Your task to perform on an android device: View the shopping cart on newegg.com. Add amazon basics triple a to the cart on newegg.com Image 0: 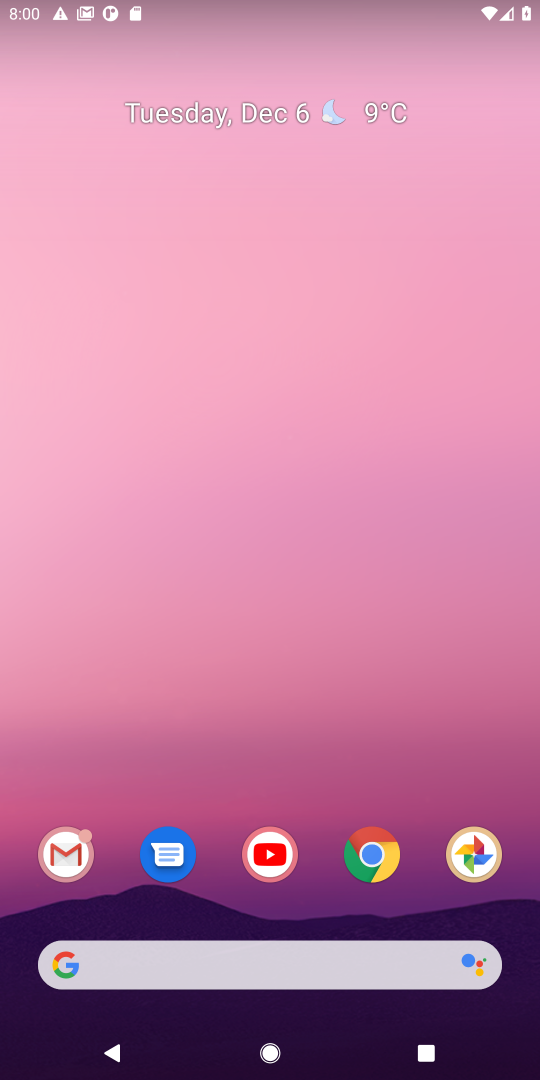
Step 0: click (366, 860)
Your task to perform on an android device: View the shopping cart on newegg.com. Add amazon basics triple a to the cart on newegg.com Image 1: 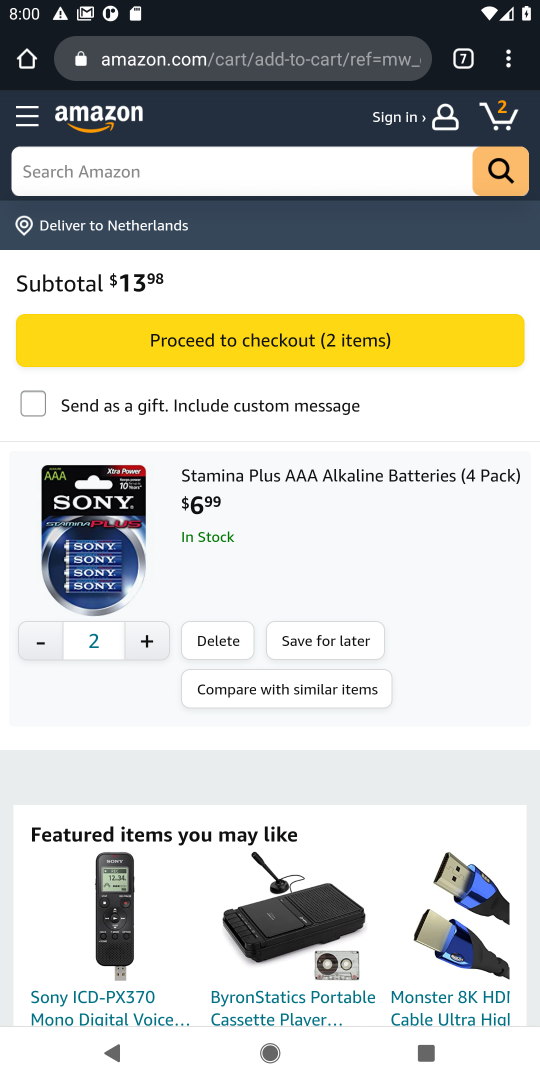
Step 1: click (469, 62)
Your task to perform on an android device: View the shopping cart on newegg.com. Add amazon basics triple a to the cart on newegg.com Image 2: 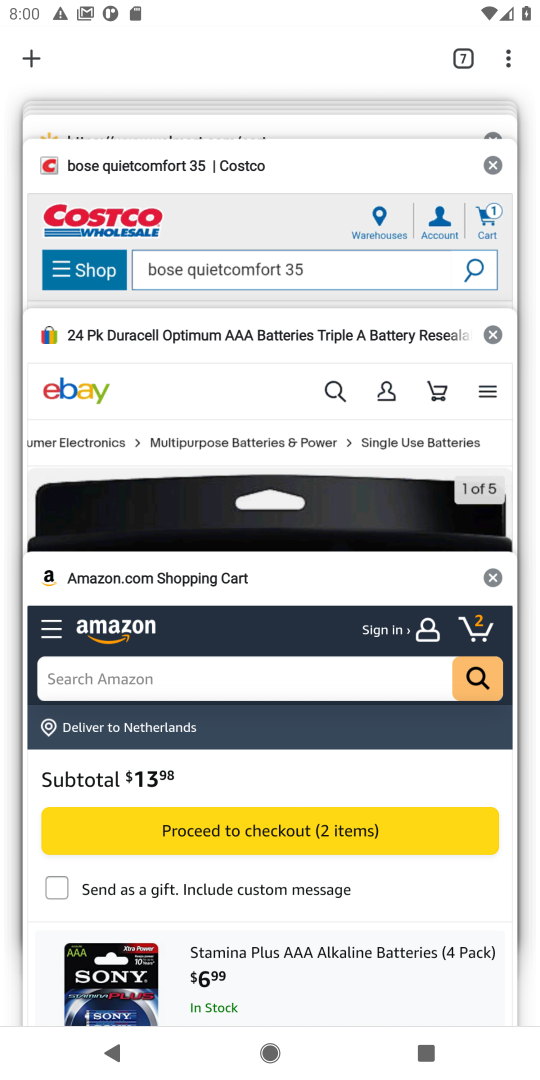
Step 2: drag from (393, 106) to (340, 483)
Your task to perform on an android device: View the shopping cart on newegg.com. Add amazon basics triple a to the cart on newegg.com Image 3: 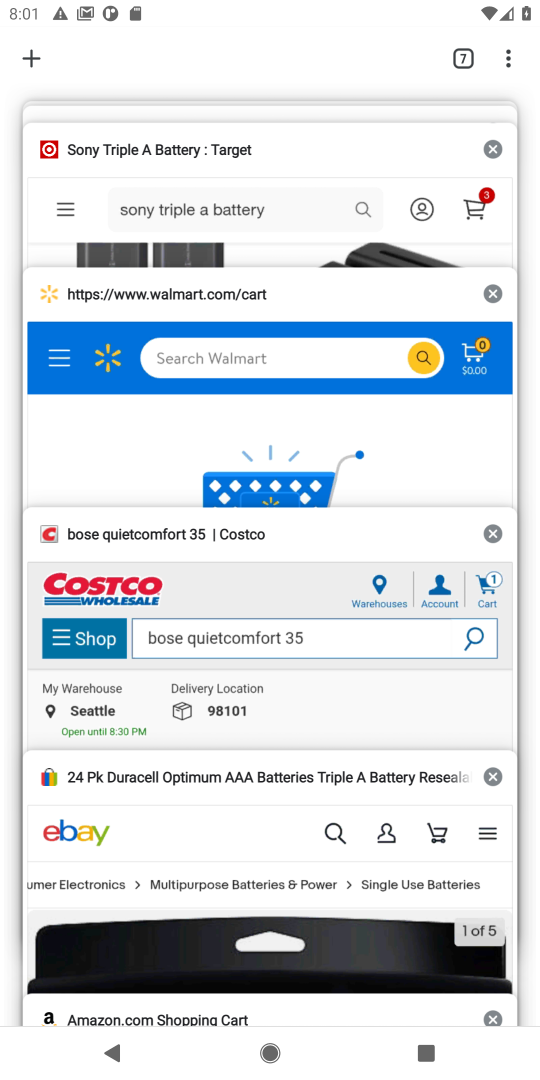
Step 3: drag from (322, 318) to (207, 750)
Your task to perform on an android device: View the shopping cart on newegg.com. Add amazon basics triple a to the cart on newegg.com Image 4: 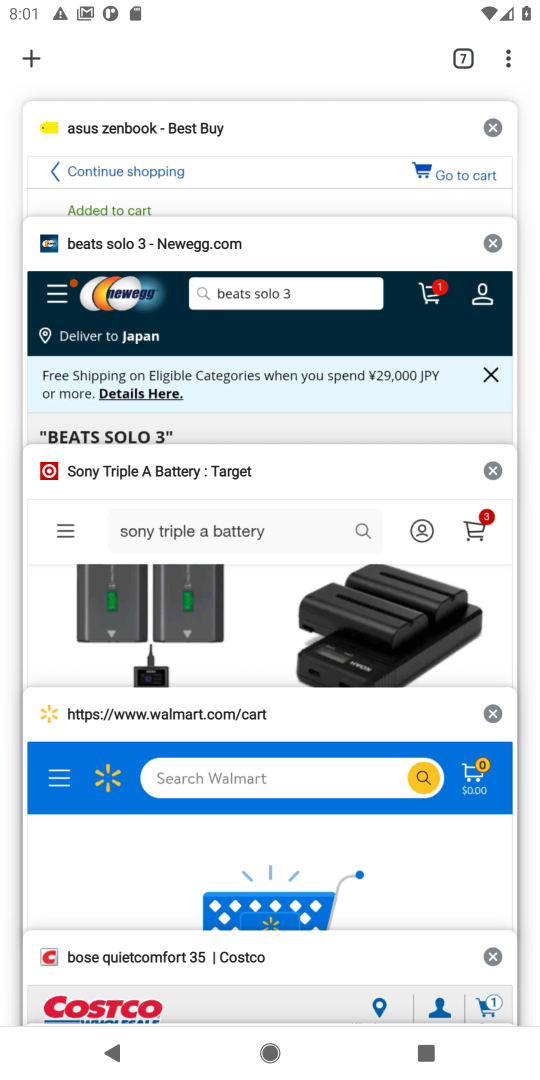
Step 4: click (257, 297)
Your task to perform on an android device: View the shopping cart on newegg.com. Add amazon basics triple a to the cart on newegg.com Image 5: 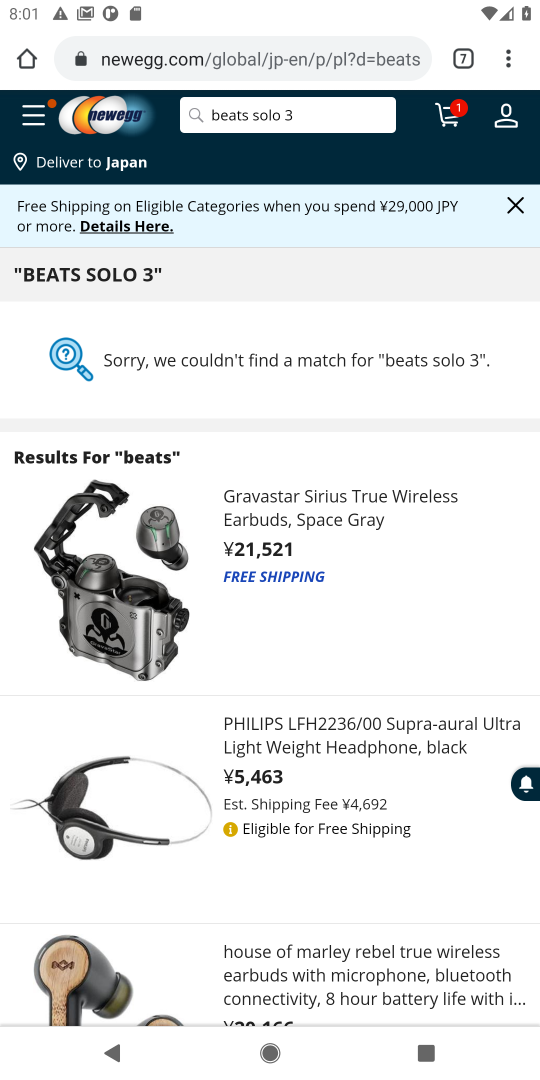
Step 5: click (457, 116)
Your task to perform on an android device: View the shopping cart on newegg.com. Add amazon basics triple a to the cart on newegg.com Image 6: 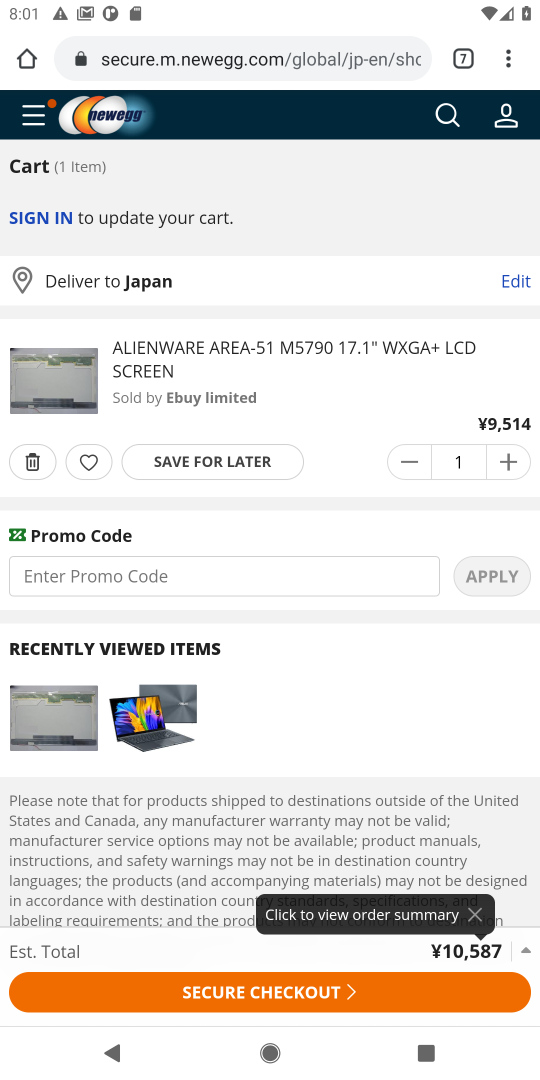
Step 6: click (445, 121)
Your task to perform on an android device: View the shopping cart on newegg.com. Add amazon basics triple a to the cart on newegg.com Image 7: 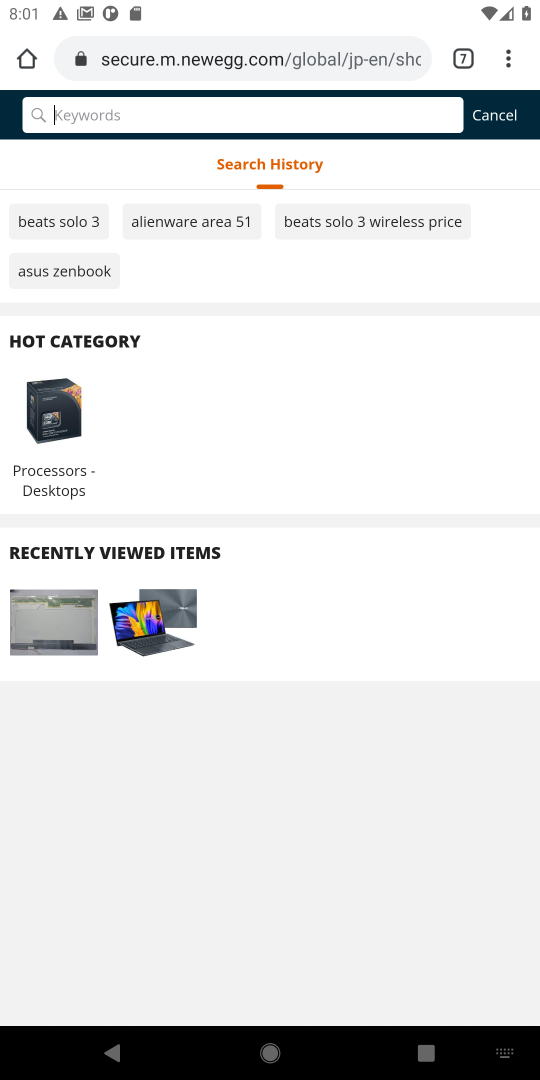
Step 7: type "amazon basics triple a batteries"
Your task to perform on an android device: View the shopping cart on newegg.com. Add amazon basics triple a to the cart on newegg.com Image 8: 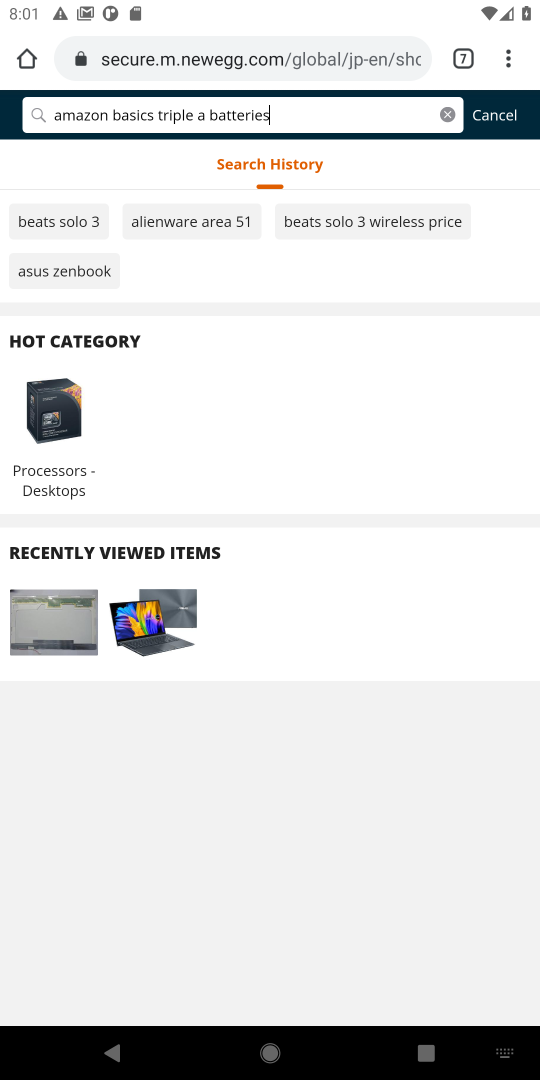
Step 8: click (36, 113)
Your task to perform on an android device: View the shopping cart on newegg.com. Add amazon basics triple a to the cart on newegg.com Image 9: 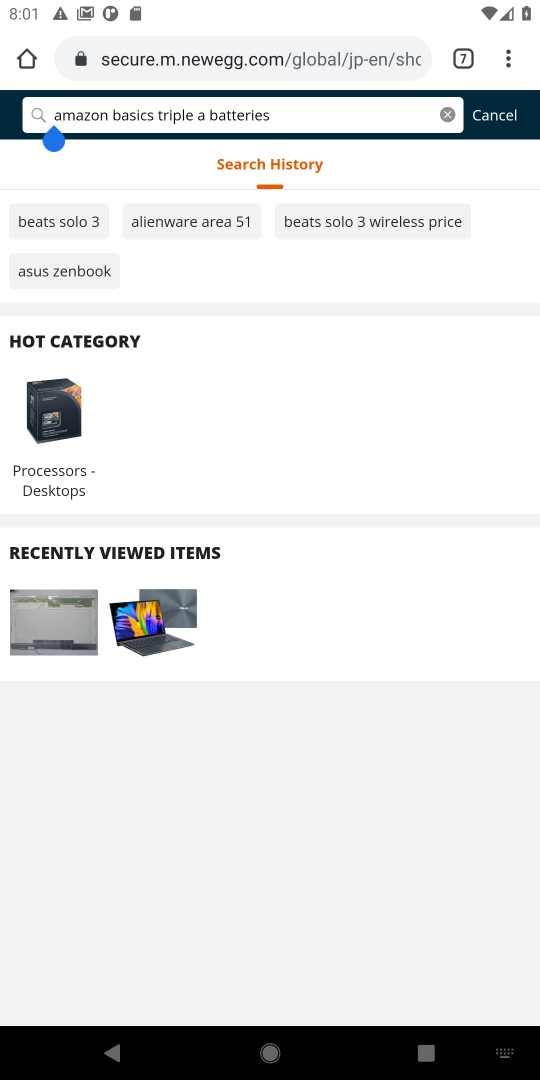
Step 9: click (303, 111)
Your task to perform on an android device: View the shopping cart on newegg.com. Add amazon basics triple a to the cart on newegg.com Image 10: 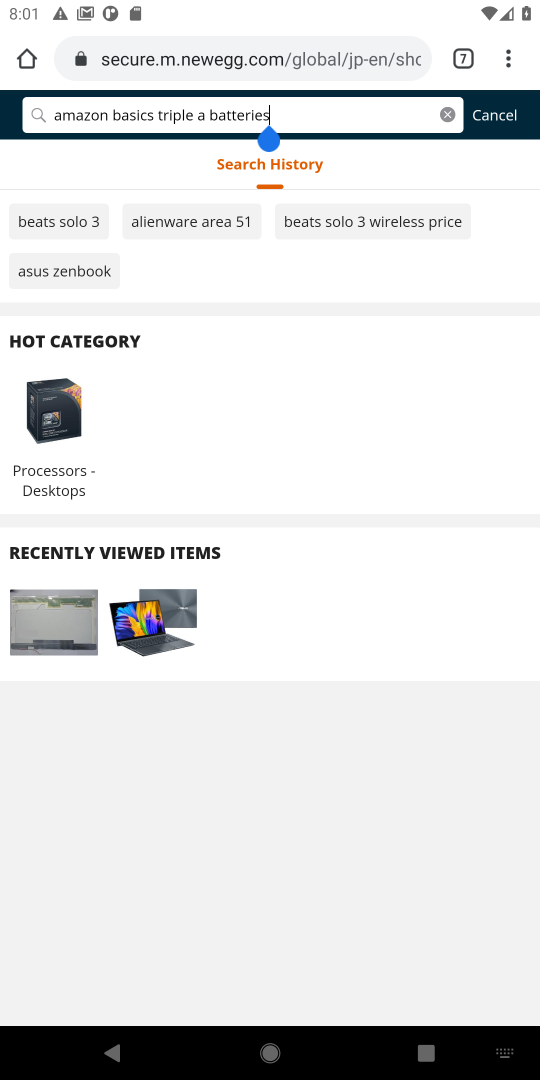
Step 10: click (450, 117)
Your task to perform on an android device: View the shopping cart on newegg.com. Add amazon basics triple a to the cart on newegg.com Image 11: 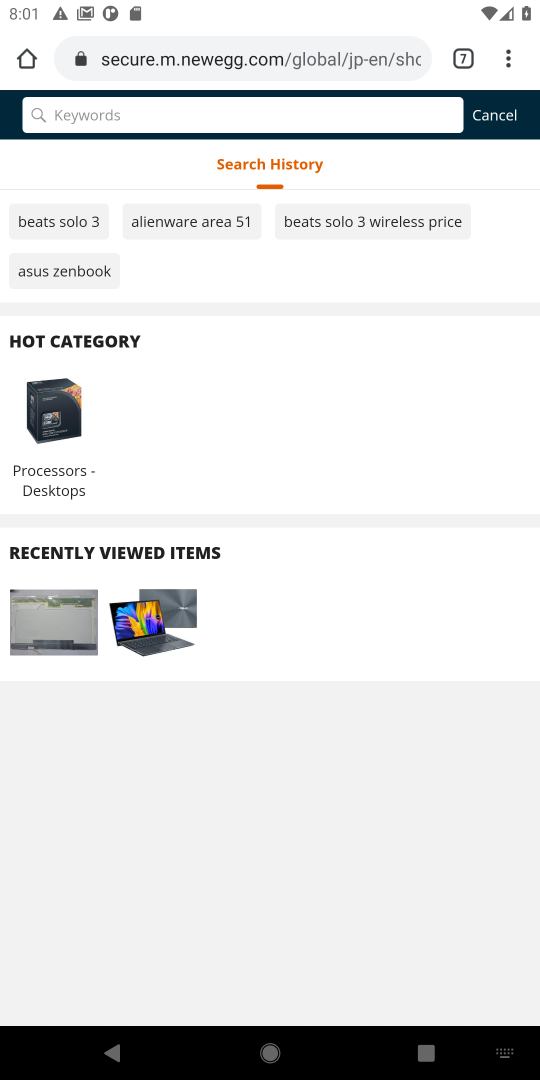
Step 11: type "amazon basics triple a batteries"
Your task to perform on an android device: View the shopping cart on newegg.com. Add amazon basics triple a to the cart on newegg.com Image 12: 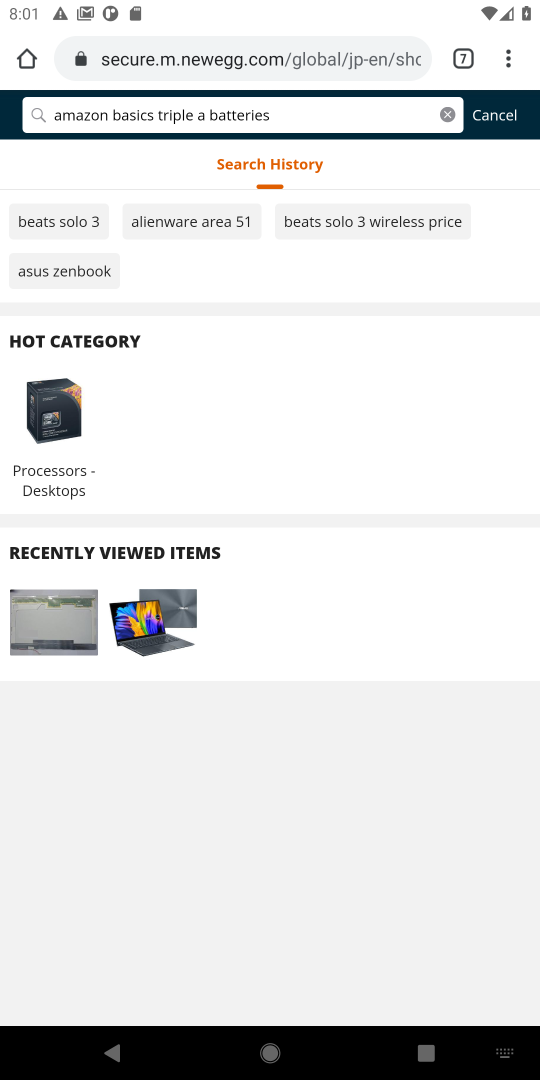
Step 12: press enter
Your task to perform on an android device: View the shopping cart on newegg.com. Add amazon basics triple a to the cart on newegg.com Image 13: 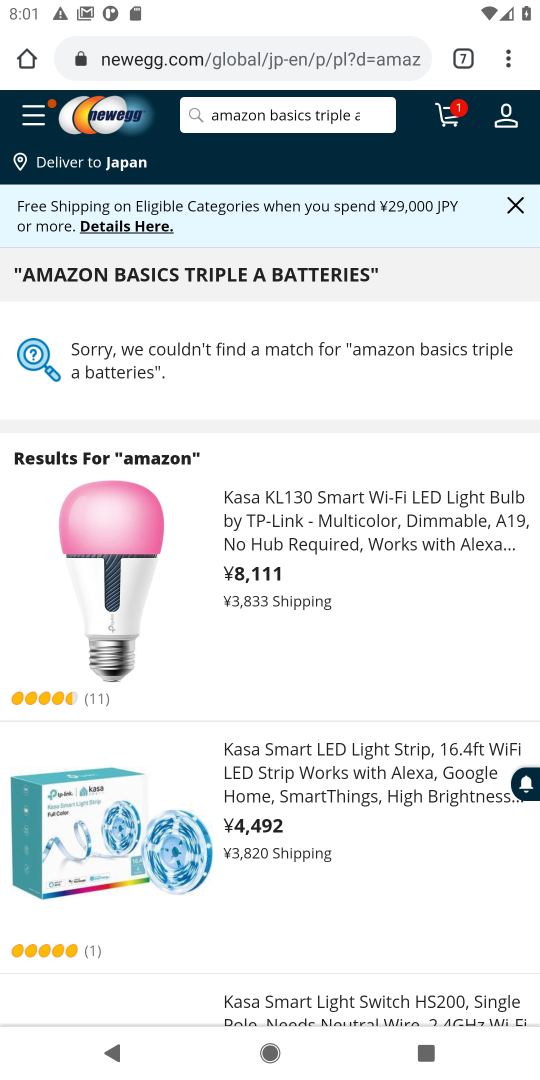
Step 13: task complete